Your task to perform on an android device: turn on location history Image 0: 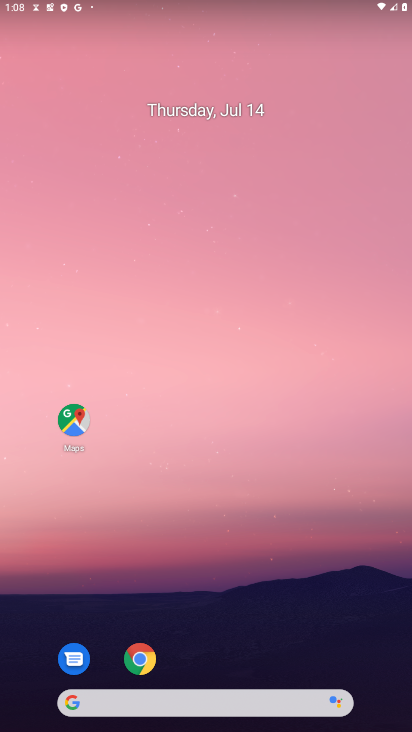
Step 0: drag from (35, 711) to (291, 163)
Your task to perform on an android device: turn on location history Image 1: 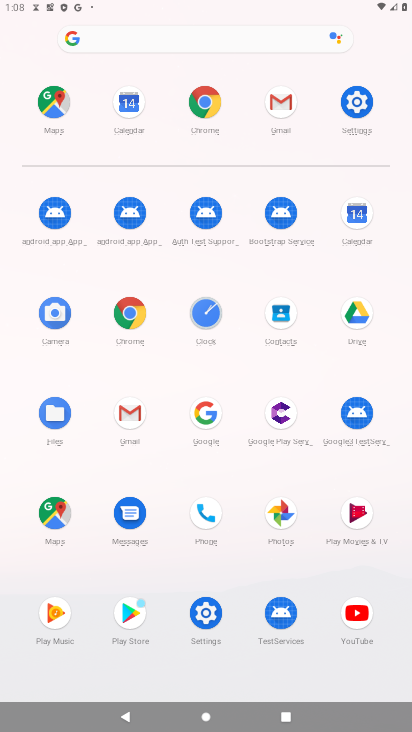
Step 1: click (200, 605)
Your task to perform on an android device: turn on location history Image 2: 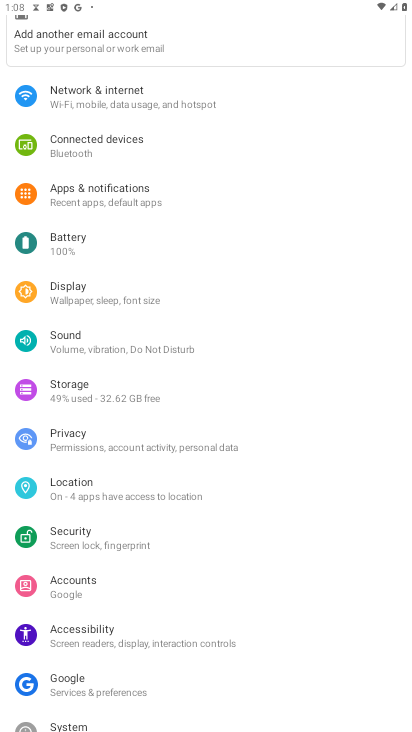
Step 2: click (79, 490)
Your task to perform on an android device: turn on location history Image 3: 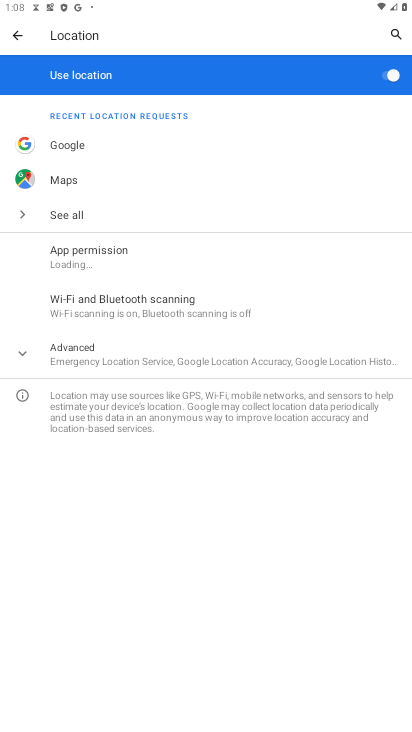
Step 3: click (84, 355)
Your task to perform on an android device: turn on location history Image 4: 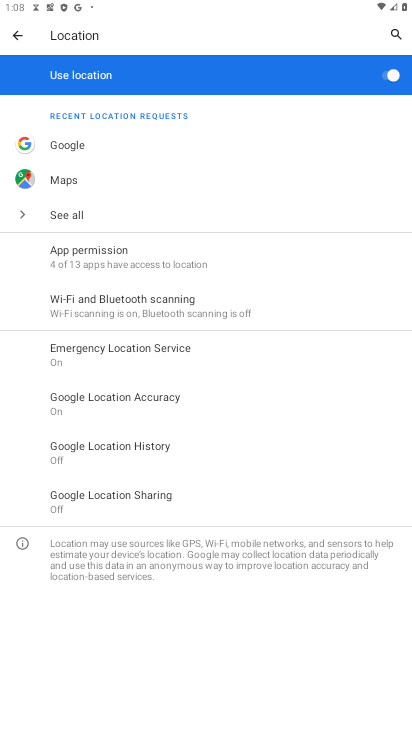
Step 4: click (102, 448)
Your task to perform on an android device: turn on location history Image 5: 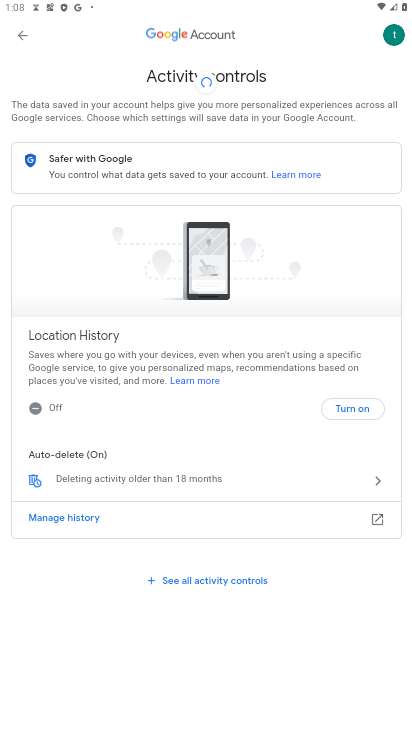
Step 5: click (343, 405)
Your task to perform on an android device: turn on location history Image 6: 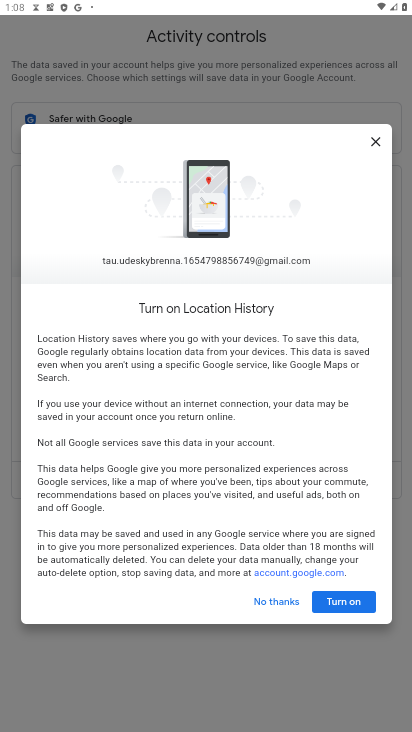
Step 6: click (353, 608)
Your task to perform on an android device: turn on location history Image 7: 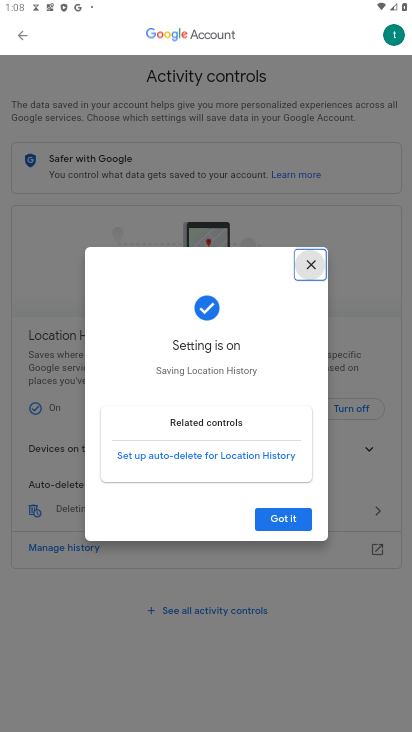
Step 7: click (279, 529)
Your task to perform on an android device: turn on location history Image 8: 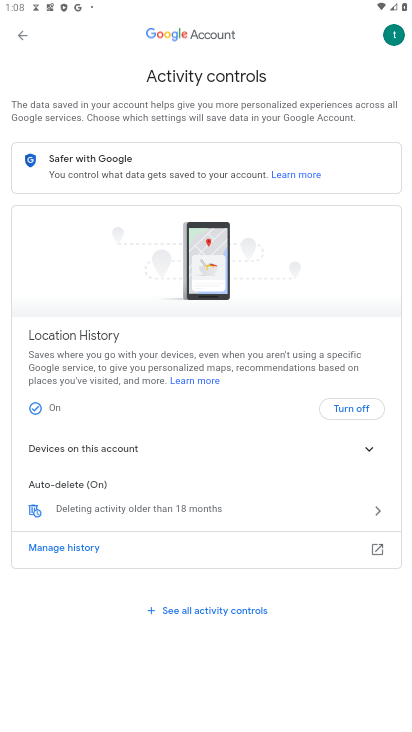
Step 8: task complete